Your task to perform on an android device: Open eBay Image 0: 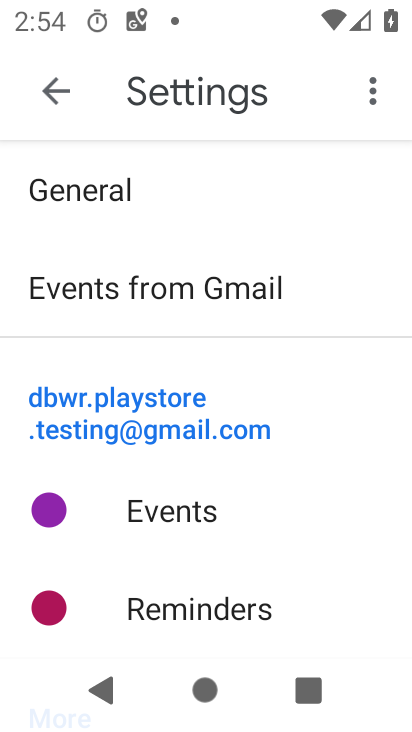
Step 0: press home button
Your task to perform on an android device: Open eBay Image 1: 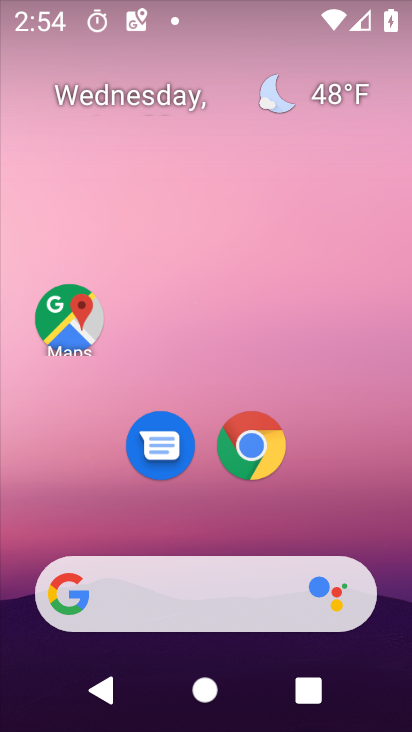
Step 1: click (252, 453)
Your task to perform on an android device: Open eBay Image 2: 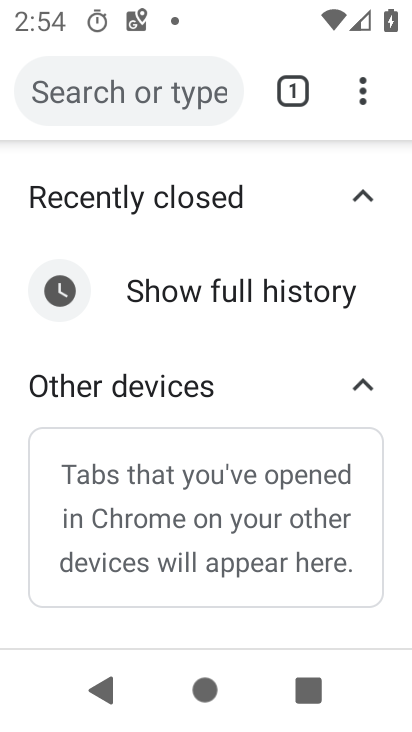
Step 2: click (364, 101)
Your task to perform on an android device: Open eBay Image 3: 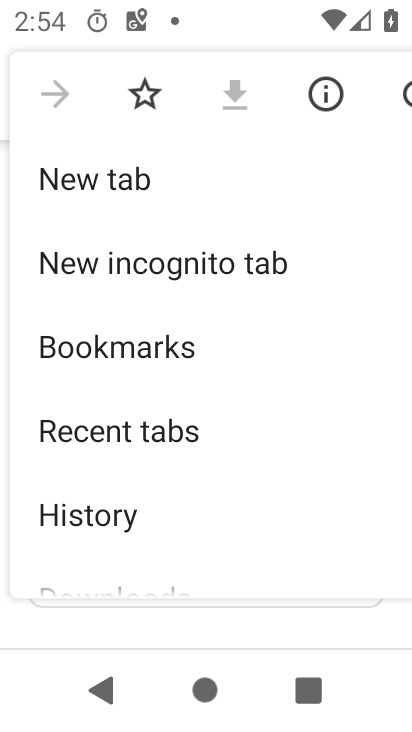
Step 3: click (131, 171)
Your task to perform on an android device: Open eBay Image 4: 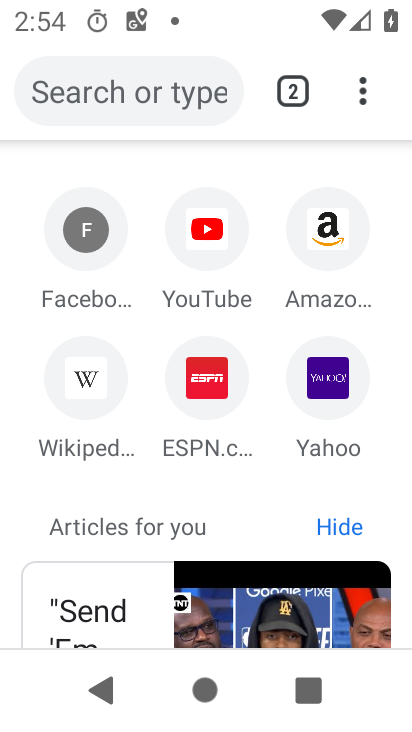
Step 4: click (127, 86)
Your task to perform on an android device: Open eBay Image 5: 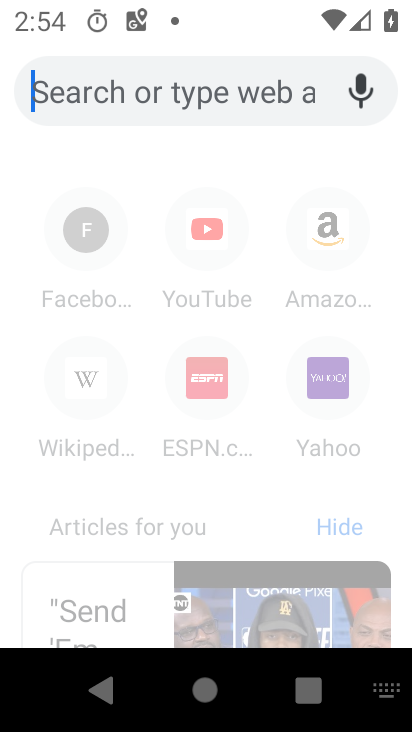
Step 5: type "ebay"
Your task to perform on an android device: Open eBay Image 6: 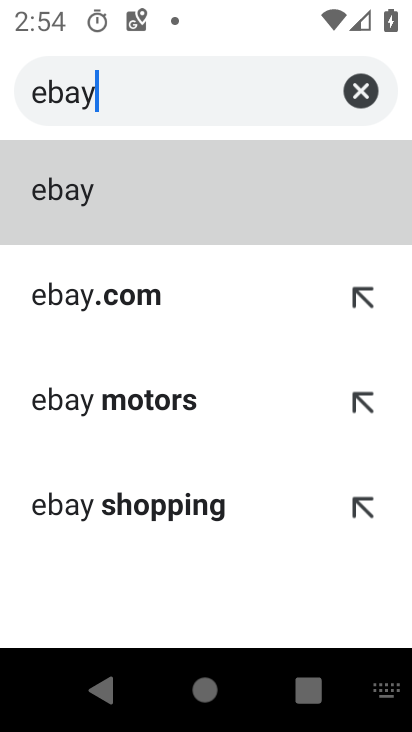
Step 6: click (50, 193)
Your task to perform on an android device: Open eBay Image 7: 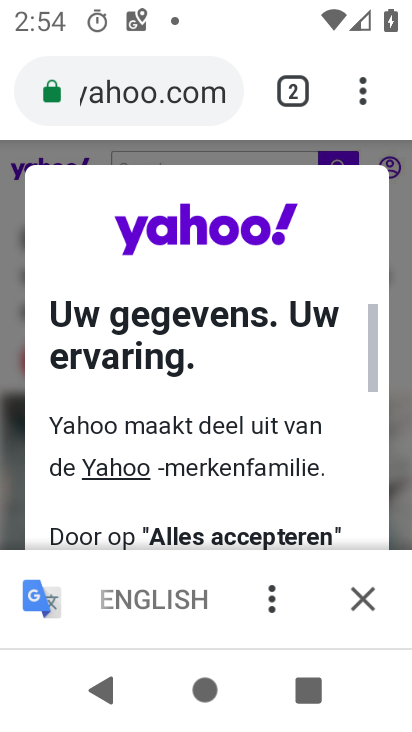
Step 7: click (144, 91)
Your task to perform on an android device: Open eBay Image 8: 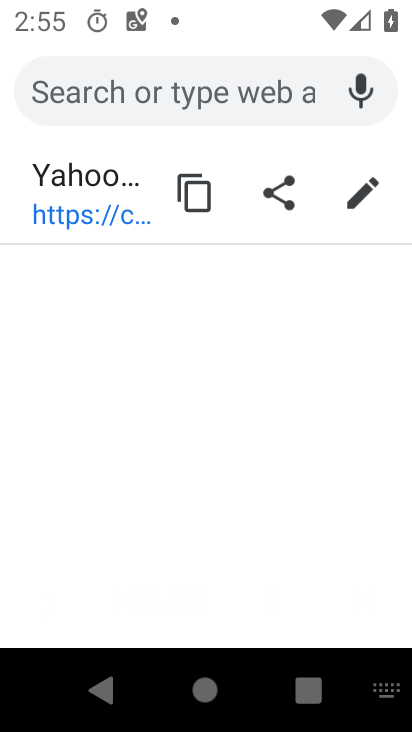
Step 8: type "ebay"
Your task to perform on an android device: Open eBay Image 9: 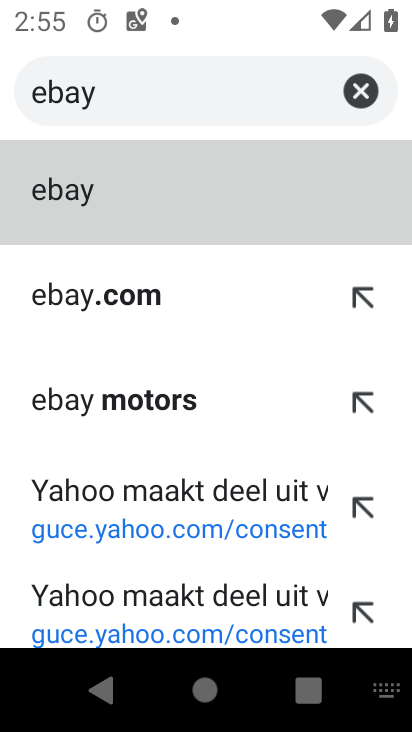
Step 9: click (71, 311)
Your task to perform on an android device: Open eBay Image 10: 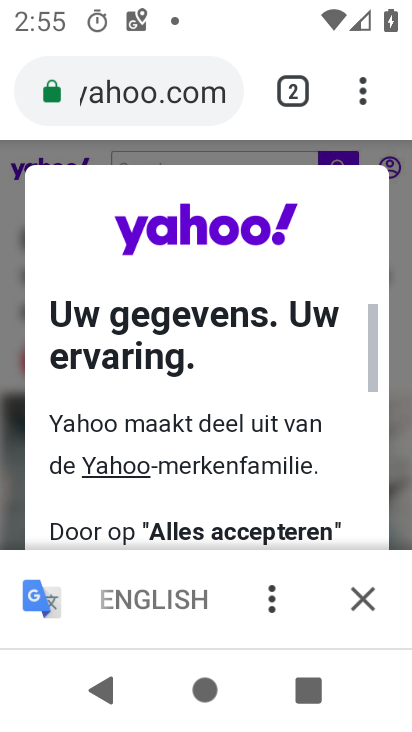
Step 10: drag from (396, 377) to (405, 185)
Your task to perform on an android device: Open eBay Image 11: 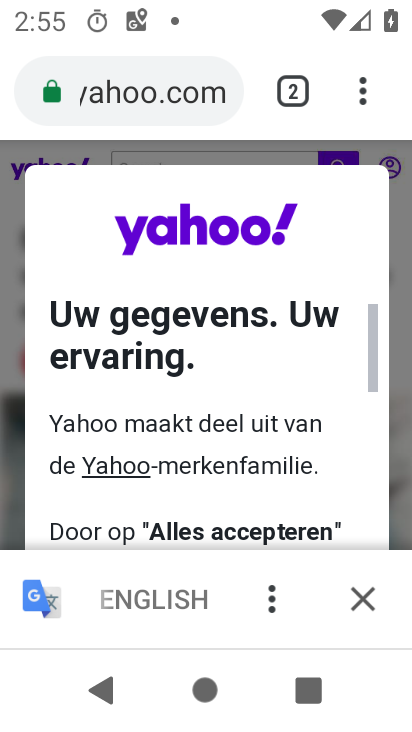
Step 11: click (354, 605)
Your task to perform on an android device: Open eBay Image 12: 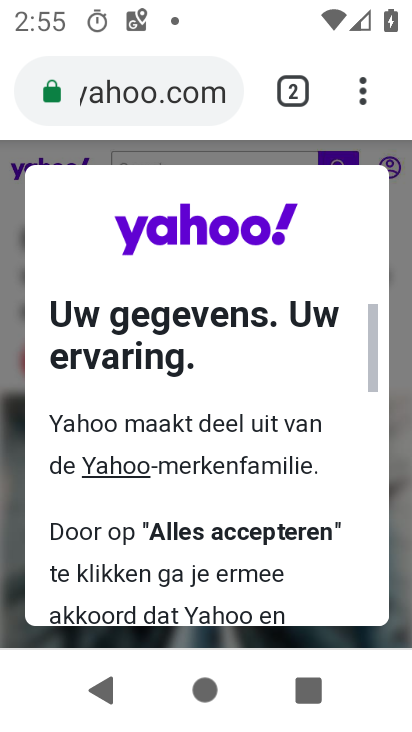
Step 12: drag from (386, 538) to (386, 266)
Your task to perform on an android device: Open eBay Image 13: 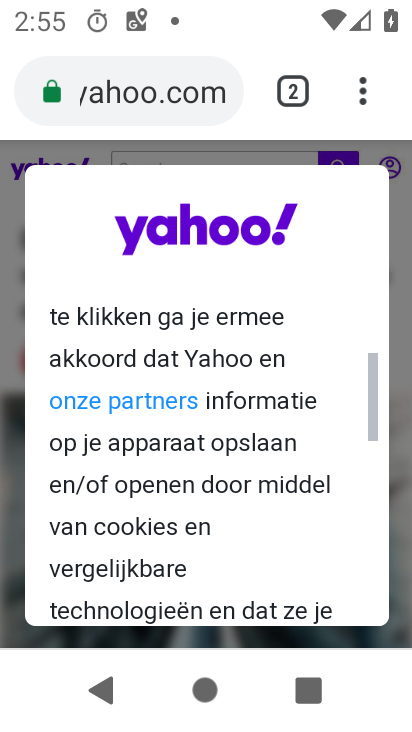
Step 13: click (8, 205)
Your task to perform on an android device: Open eBay Image 14: 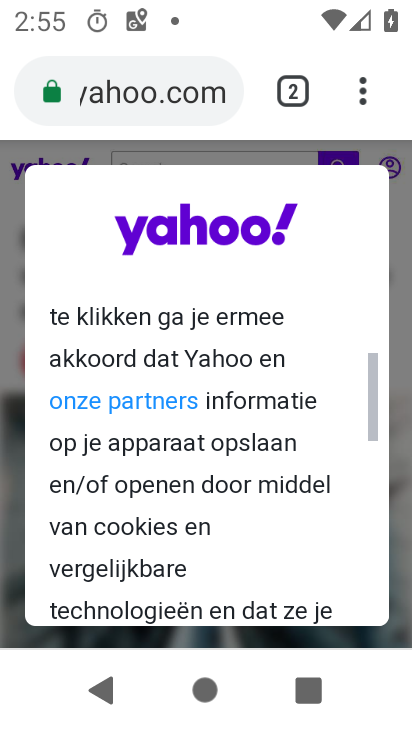
Step 14: click (145, 90)
Your task to perform on an android device: Open eBay Image 15: 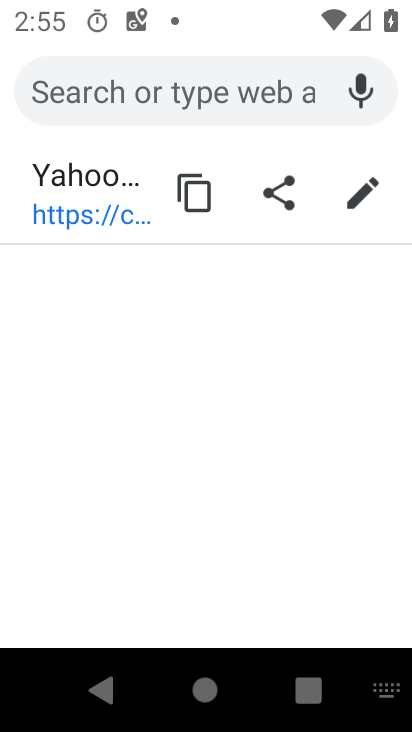
Step 15: type "ebay"
Your task to perform on an android device: Open eBay Image 16: 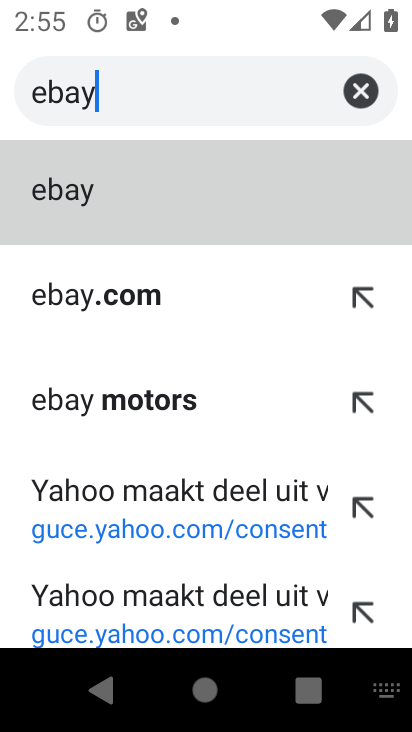
Step 16: click (53, 191)
Your task to perform on an android device: Open eBay Image 17: 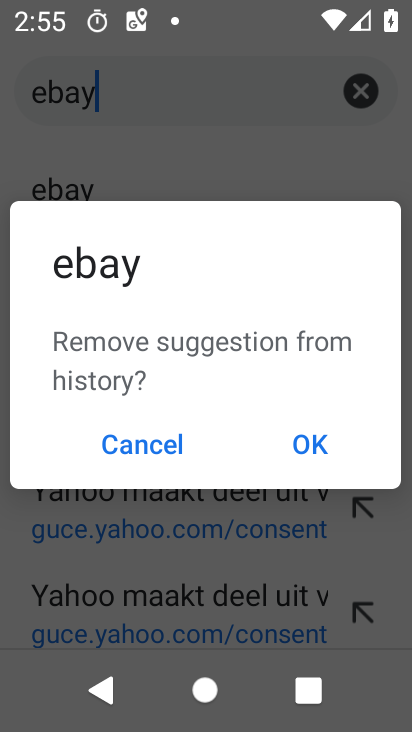
Step 17: click (164, 447)
Your task to perform on an android device: Open eBay Image 18: 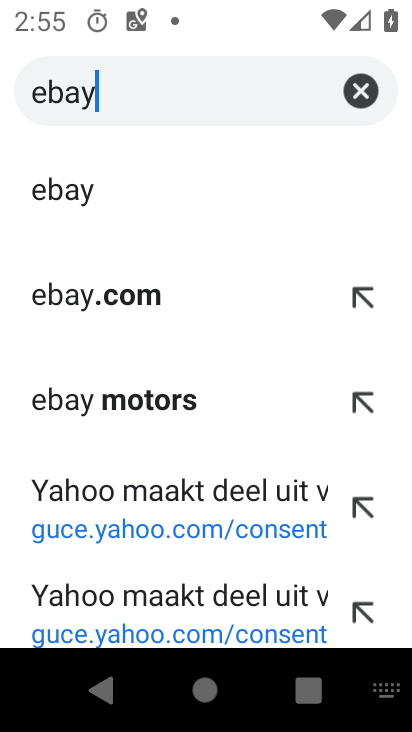
Step 18: click (62, 198)
Your task to perform on an android device: Open eBay Image 19: 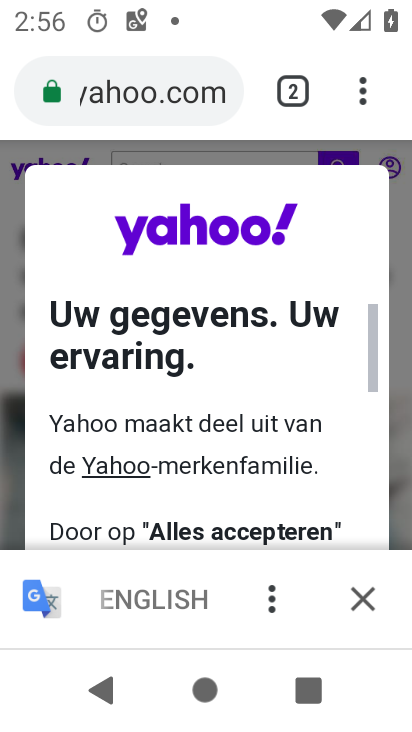
Step 19: task complete